Your task to perform on an android device: Is it going to rain tomorrow? Image 0: 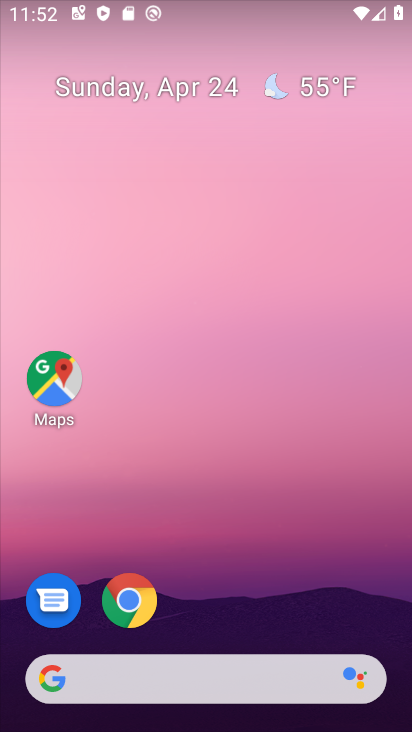
Step 0: click (180, 692)
Your task to perform on an android device: Is it going to rain tomorrow? Image 1: 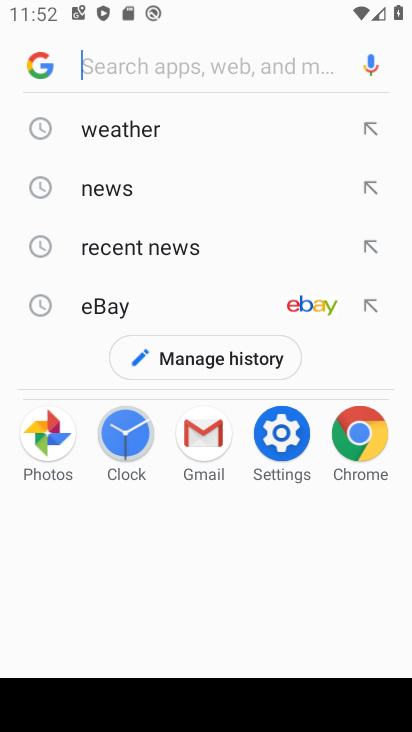
Step 1: click (148, 150)
Your task to perform on an android device: Is it going to rain tomorrow? Image 2: 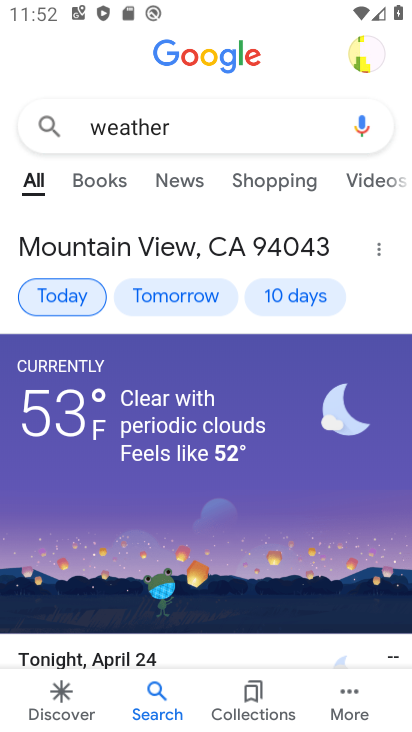
Step 2: click (173, 292)
Your task to perform on an android device: Is it going to rain tomorrow? Image 3: 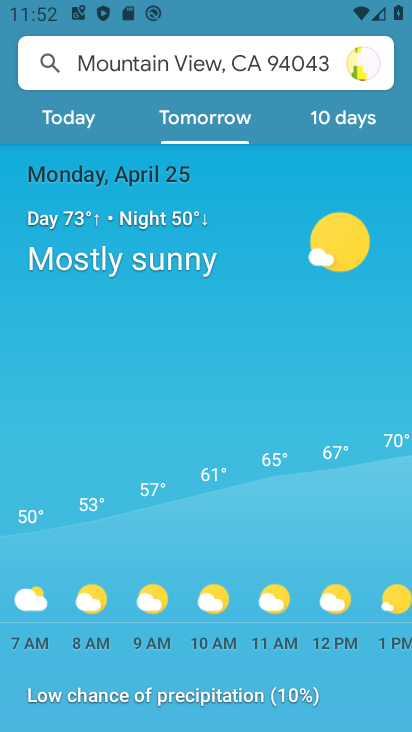
Step 3: task complete